Your task to perform on an android device: Show me recent news Image 0: 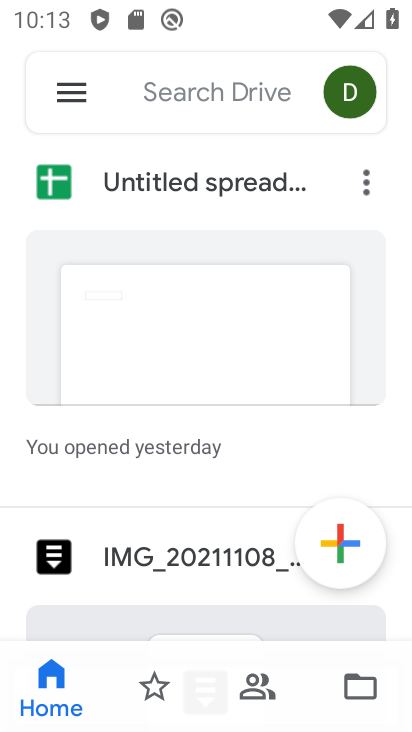
Step 0: press home button
Your task to perform on an android device: Show me recent news Image 1: 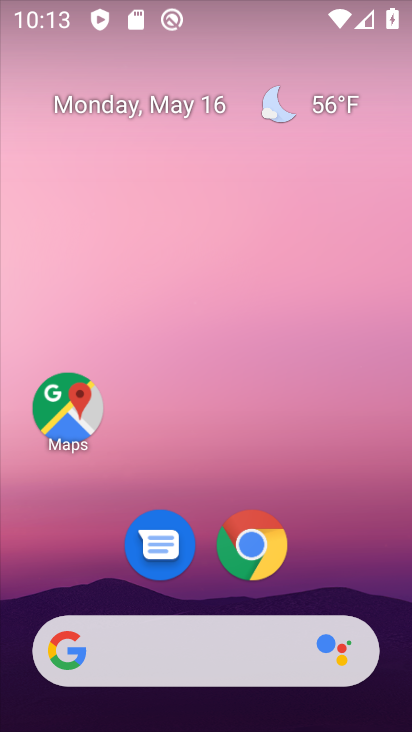
Step 1: click (200, 647)
Your task to perform on an android device: Show me recent news Image 2: 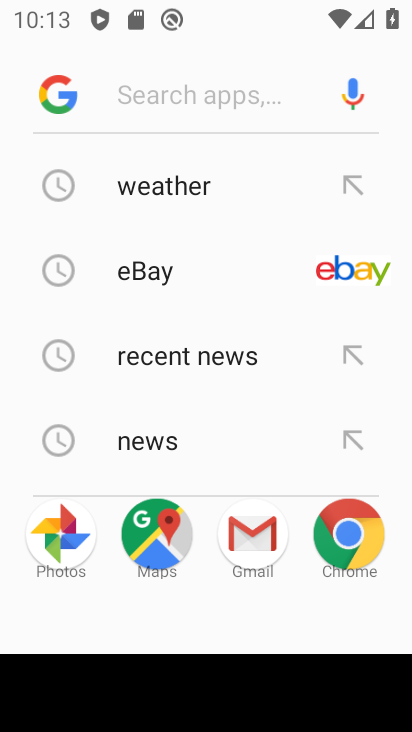
Step 2: click (143, 431)
Your task to perform on an android device: Show me recent news Image 3: 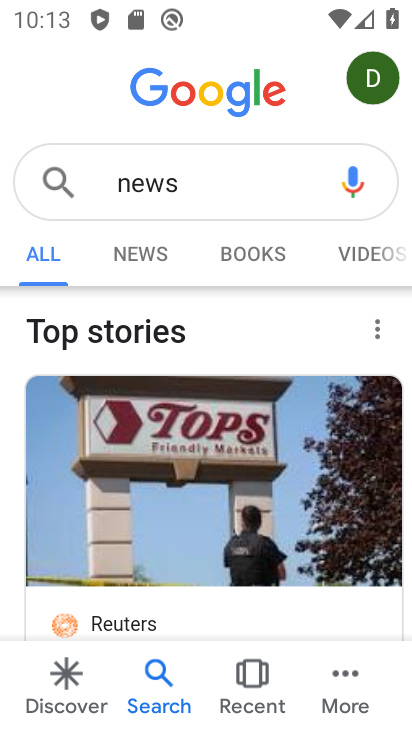
Step 3: press back button
Your task to perform on an android device: Show me recent news Image 4: 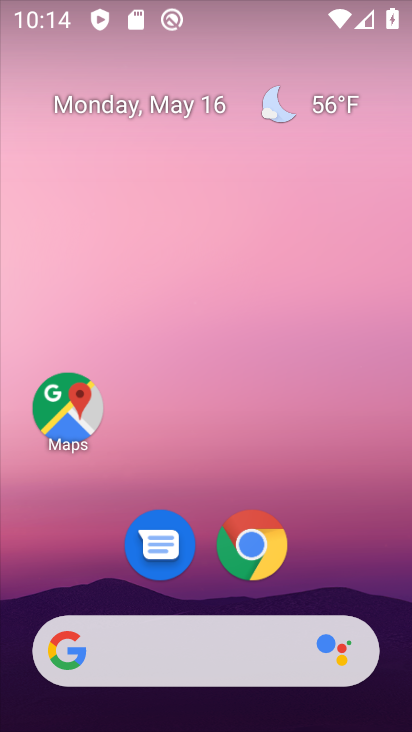
Step 4: click (220, 648)
Your task to perform on an android device: Show me recent news Image 5: 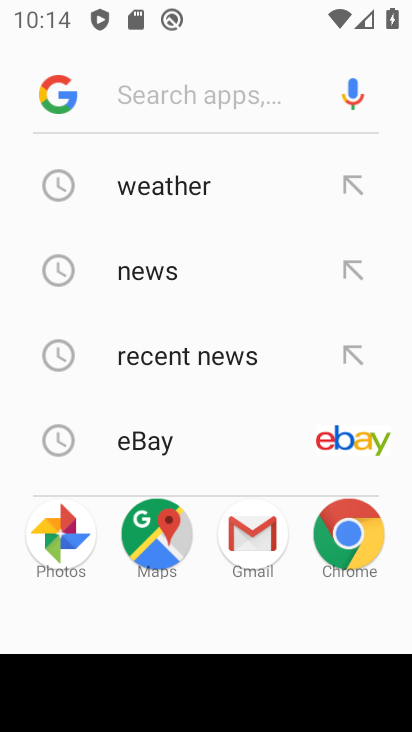
Step 5: click (185, 244)
Your task to perform on an android device: Show me recent news Image 6: 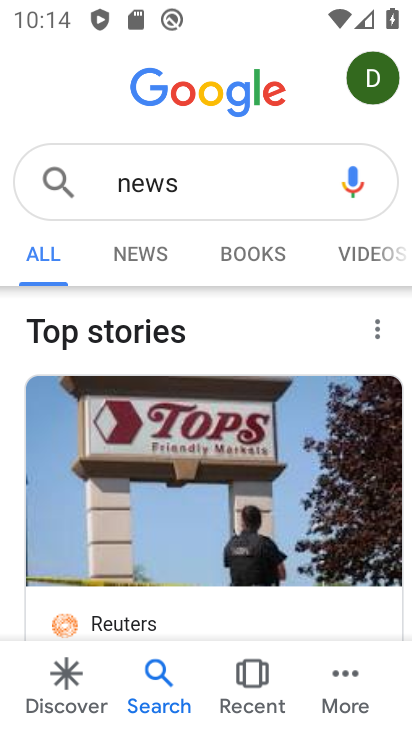
Step 6: task complete